Your task to perform on an android device: turn on bluetooth scan Image 0: 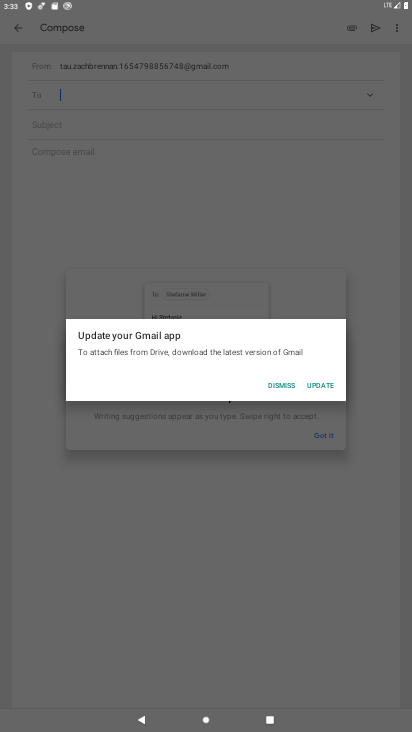
Step 0: press home button
Your task to perform on an android device: turn on bluetooth scan Image 1: 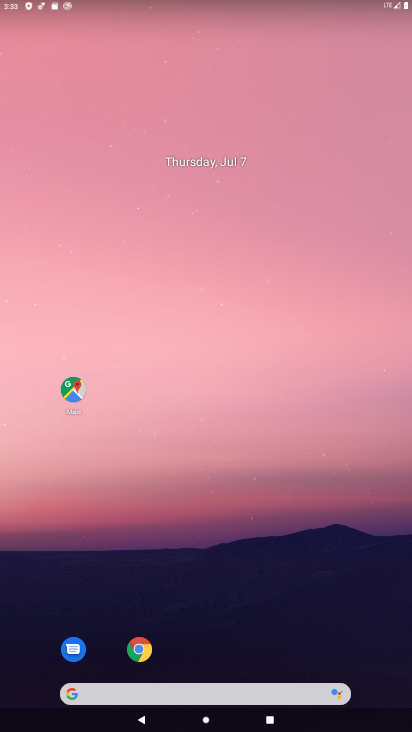
Step 1: drag from (203, 647) to (225, 168)
Your task to perform on an android device: turn on bluetooth scan Image 2: 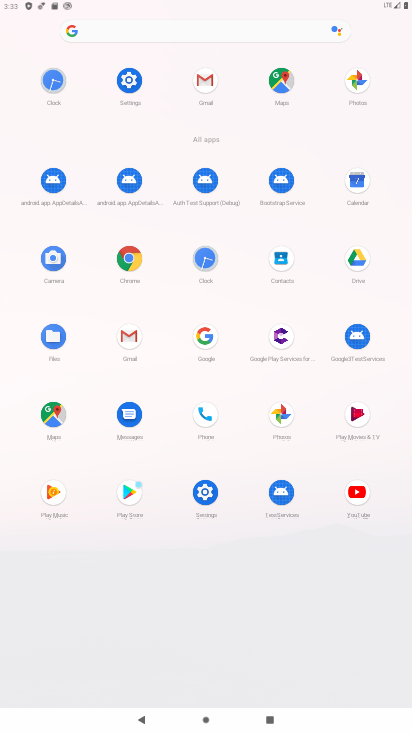
Step 2: click (131, 93)
Your task to perform on an android device: turn on bluetooth scan Image 3: 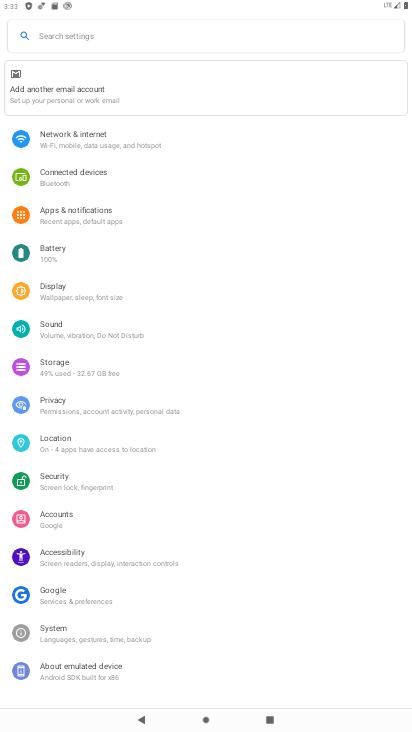
Step 3: click (80, 178)
Your task to perform on an android device: turn on bluetooth scan Image 4: 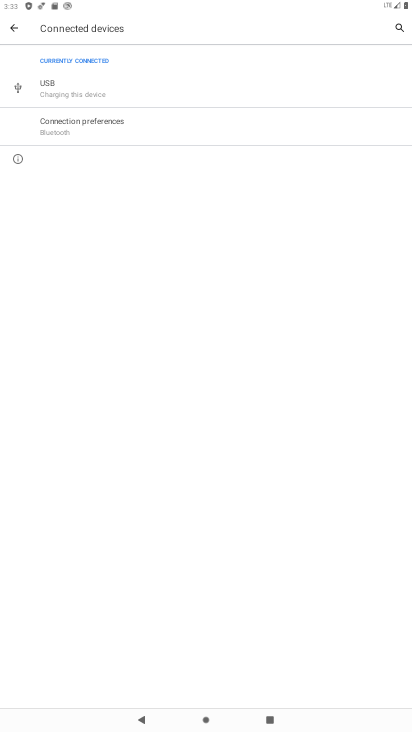
Step 4: click (111, 141)
Your task to perform on an android device: turn on bluetooth scan Image 5: 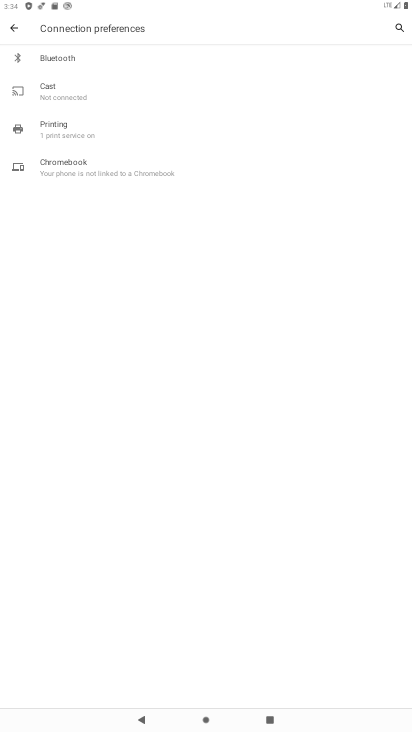
Step 5: click (110, 56)
Your task to perform on an android device: turn on bluetooth scan Image 6: 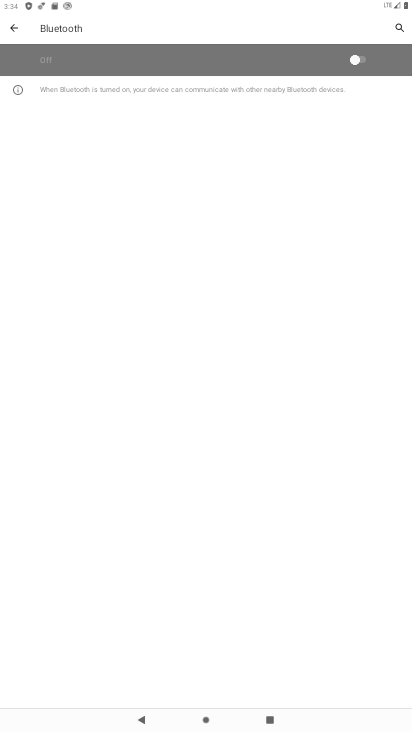
Step 6: click (263, 66)
Your task to perform on an android device: turn on bluetooth scan Image 7: 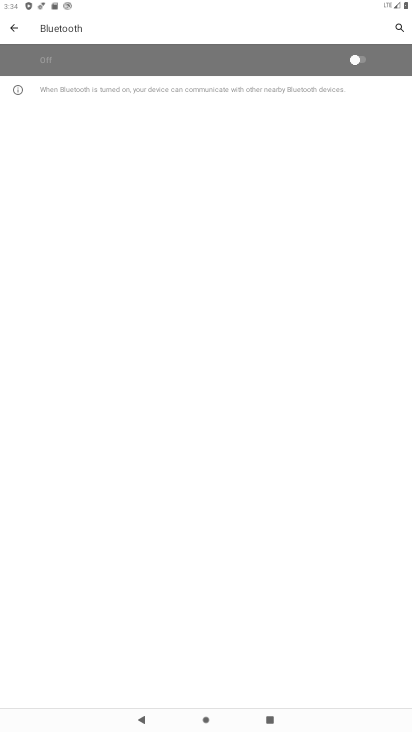
Step 7: task complete